Your task to perform on an android device: Open calendar and show me the fourth week of next month Image 0: 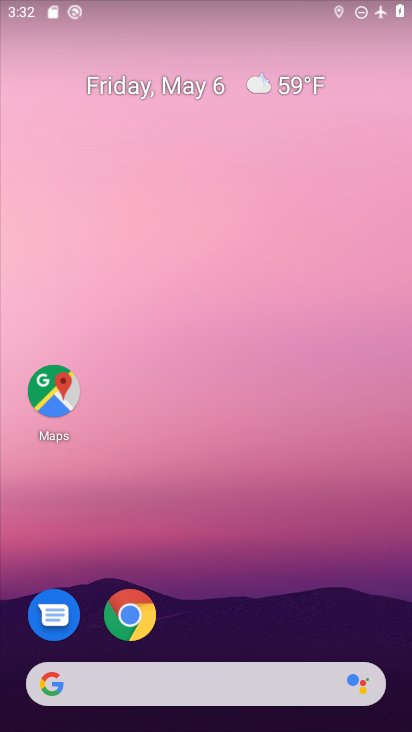
Step 0: drag from (300, 562) to (316, 55)
Your task to perform on an android device: Open calendar and show me the fourth week of next month Image 1: 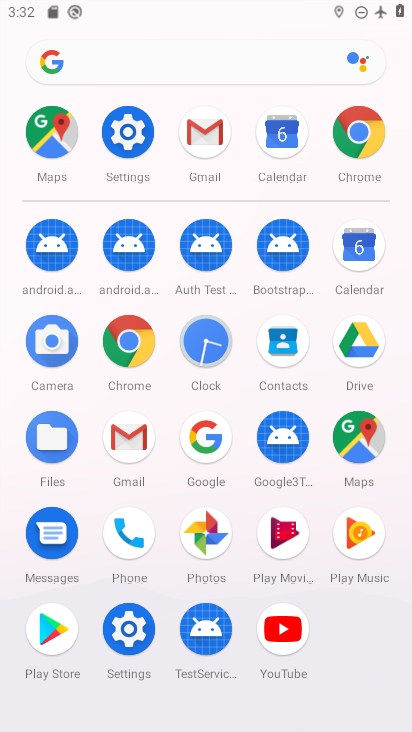
Step 1: click (356, 252)
Your task to perform on an android device: Open calendar and show me the fourth week of next month Image 2: 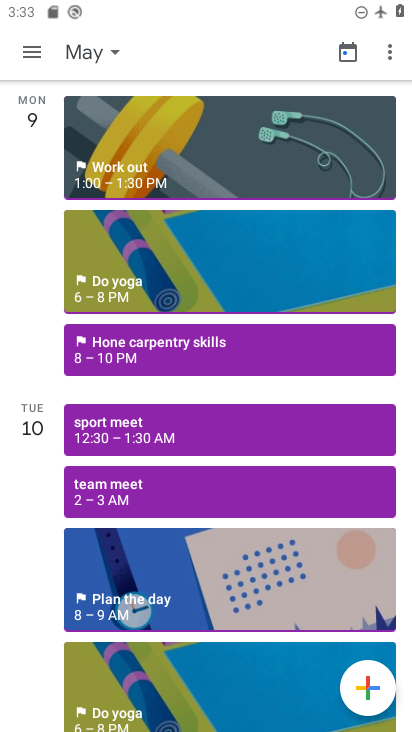
Step 2: click (110, 59)
Your task to perform on an android device: Open calendar and show me the fourth week of next month Image 3: 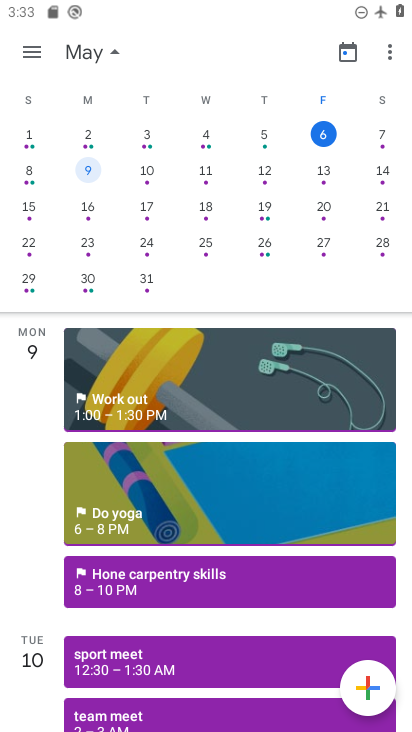
Step 3: click (265, 239)
Your task to perform on an android device: Open calendar and show me the fourth week of next month Image 4: 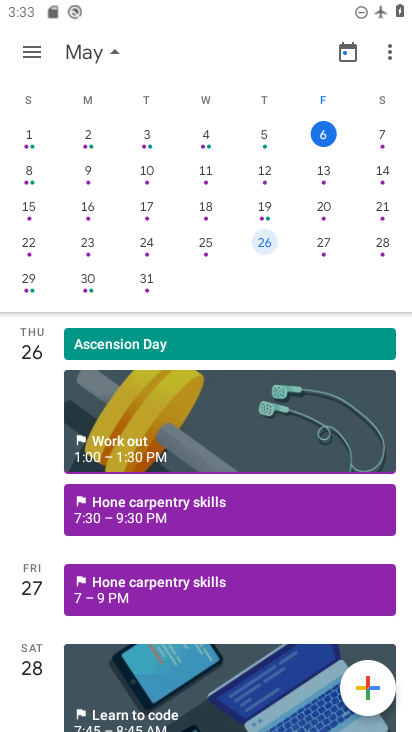
Step 4: task complete